Your task to perform on an android device: turn notification dots on Image 0: 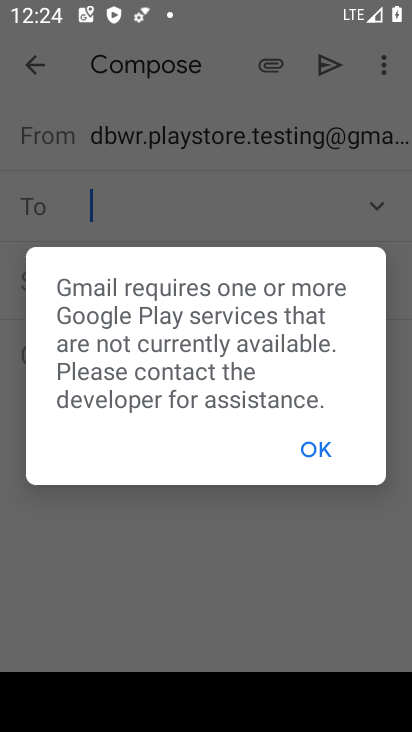
Step 0: press back button
Your task to perform on an android device: turn notification dots on Image 1: 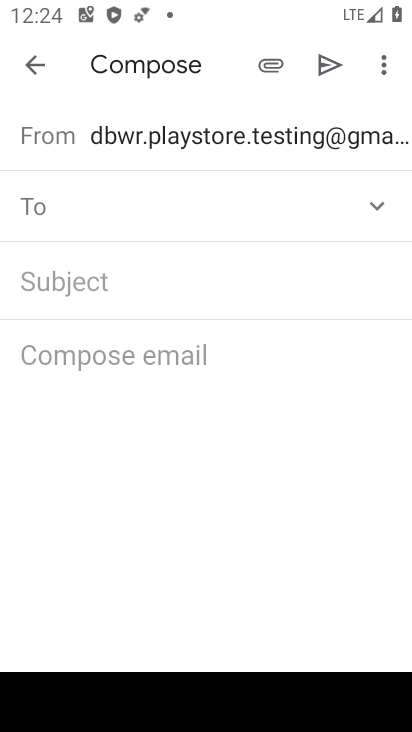
Step 1: press back button
Your task to perform on an android device: turn notification dots on Image 2: 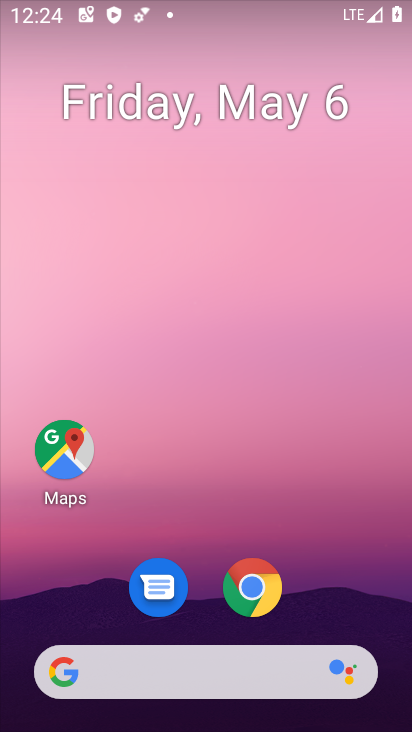
Step 2: drag from (203, 621) to (273, 137)
Your task to perform on an android device: turn notification dots on Image 3: 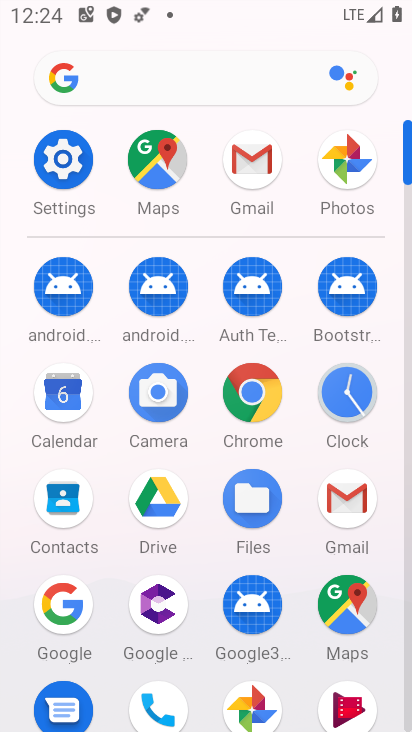
Step 3: click (59, 159)
Your task to perform on an android device: turn notification dots on Image 4: 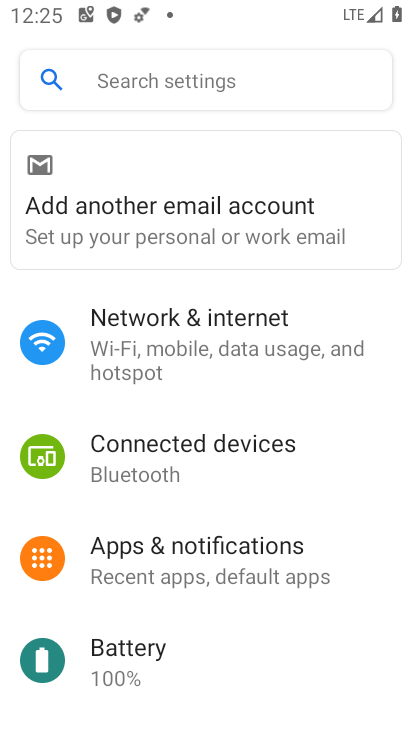
Step 4: click (240, 574)
Your task to perform on an android device: turn notification dots on Image 5: 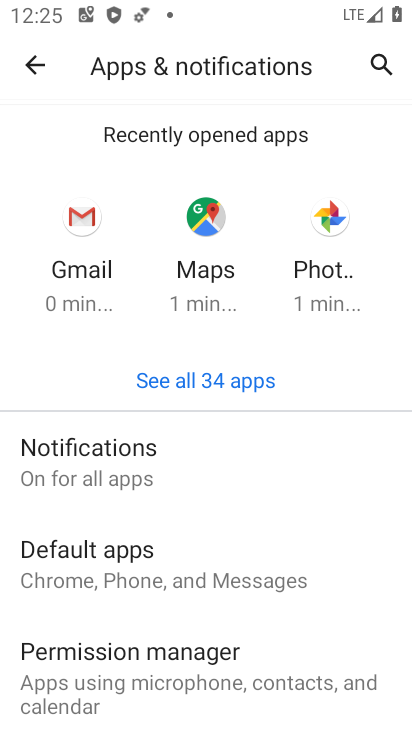
Step 5: click (151, 466)
Your task to perform on an android device: turn notification dots on Image 6: 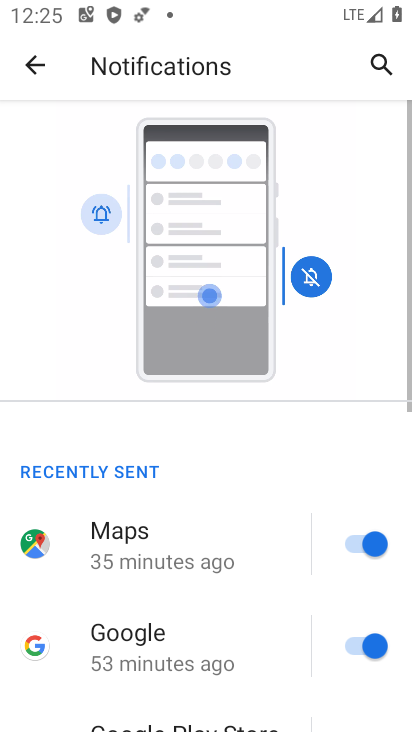
Step 6: drag from (249, 648) to (303, 58)
Your task to perform on an android device: turn notification dots on Image 7: 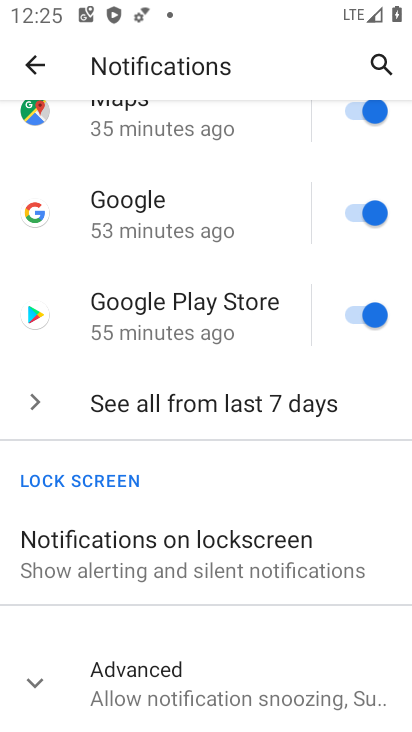
Step 7: click (160, 674)
Your task to perform on an android device: turn notification dots on Image 8: 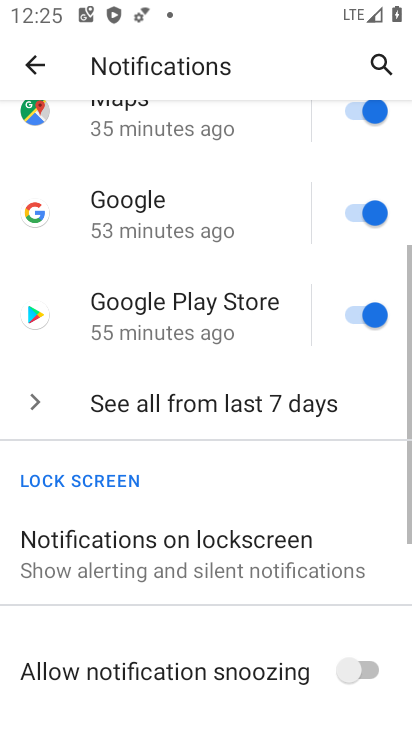
Step 8: task complete